Your task to perform on an android device: turn on the 24-hour format for clock Image 0: 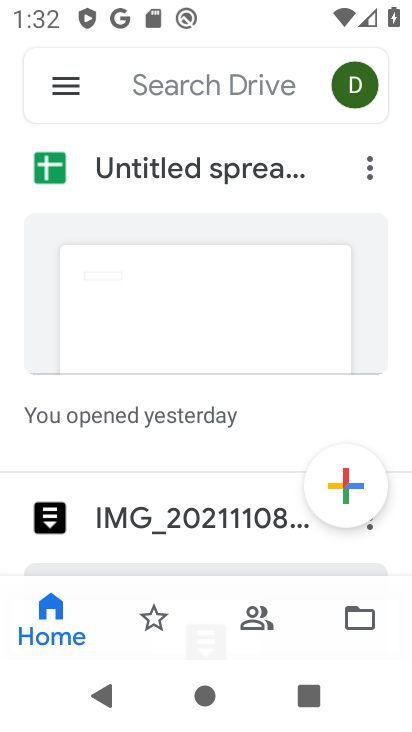
Step 0: press home button
Your task to perform on an android device: turn on the 24-hour format for clock Image 1: 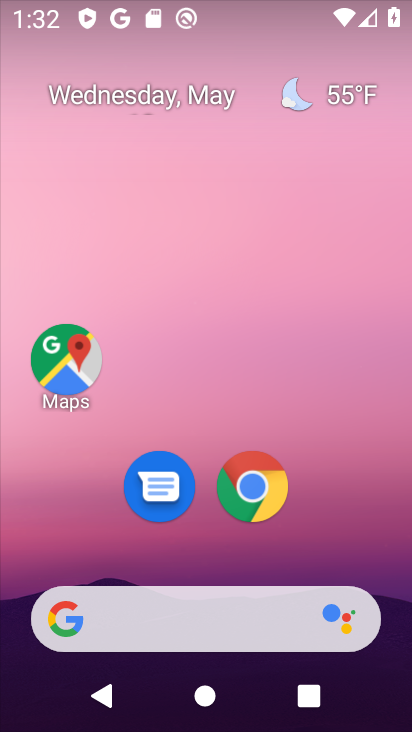
Step 1: drag from (297, 574) to (333, 34)
Your task to perform on an android device: turn on the 24-hour format for clock Image 2: 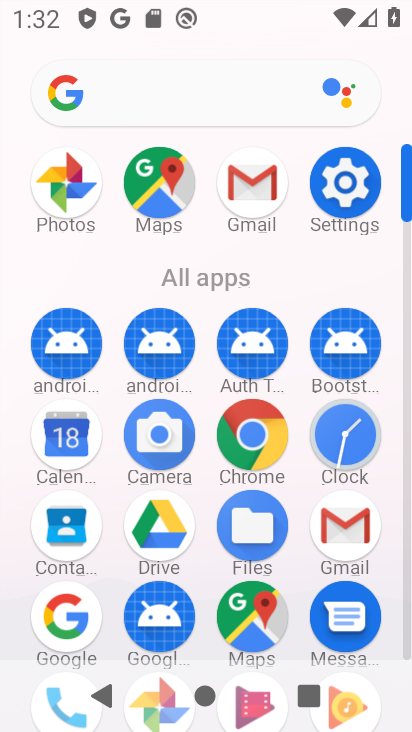
Step 2: click (338, 430)
Your task to perform on an android device: turn on the 24-hour format for clock Image 3: 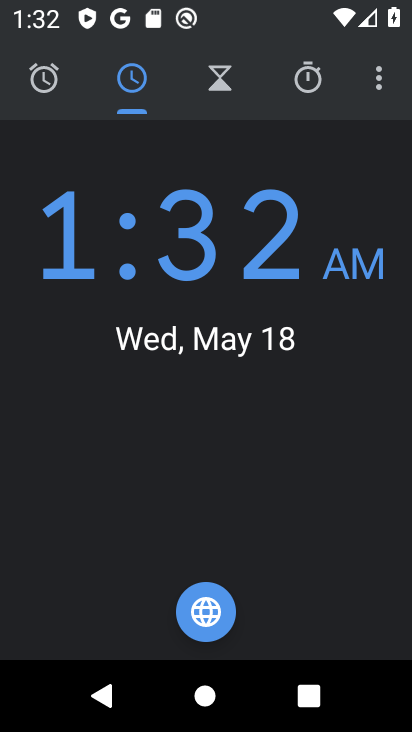
Step 3: click (366, 77)
Your task to perform on an android device: turn on the 24-hour format for clock Image 4: 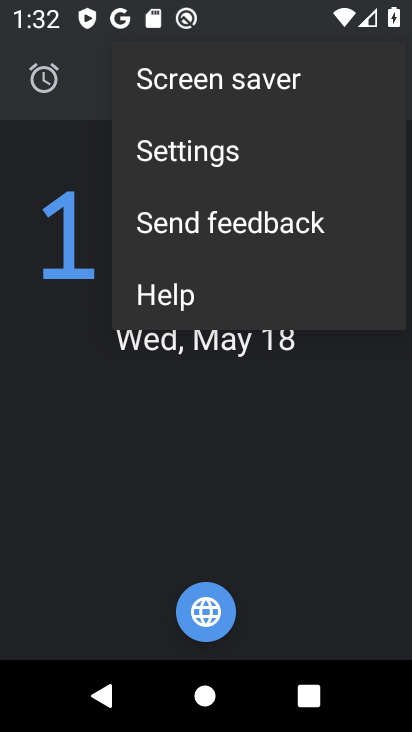
Step 4: click (284, 167)
Your task to perform on an android device: turn on the 24-hour format for clock Image 5: 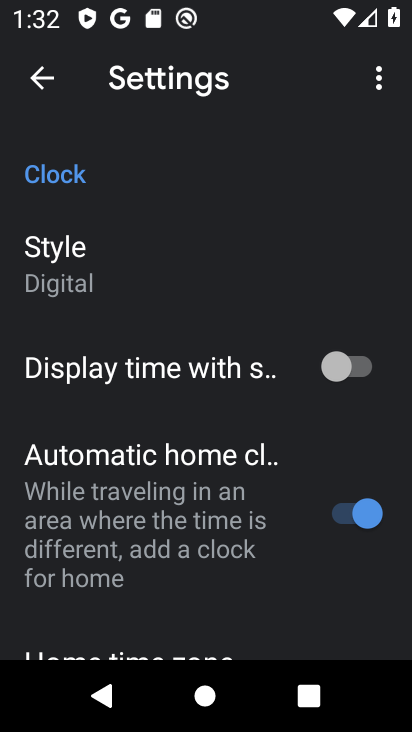
Step 5: task complete